Your task to perform on an android device: turn off data saver in the chrome app Image 0: 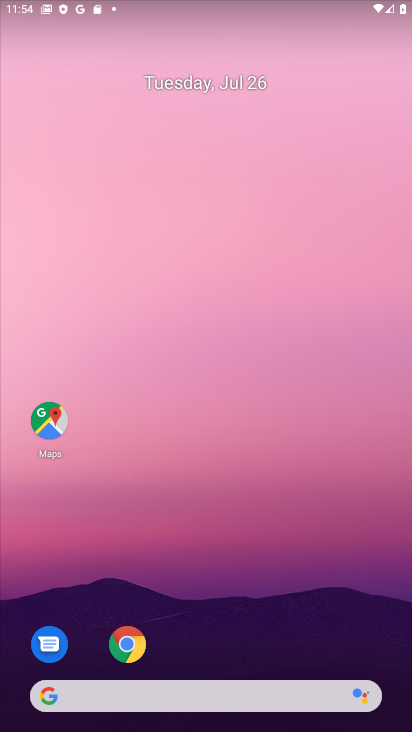
Step 0: drag from (214, 455) to (206, 179)
Your task to perform on an android device: turn off data saver in the chrome app Image 1: 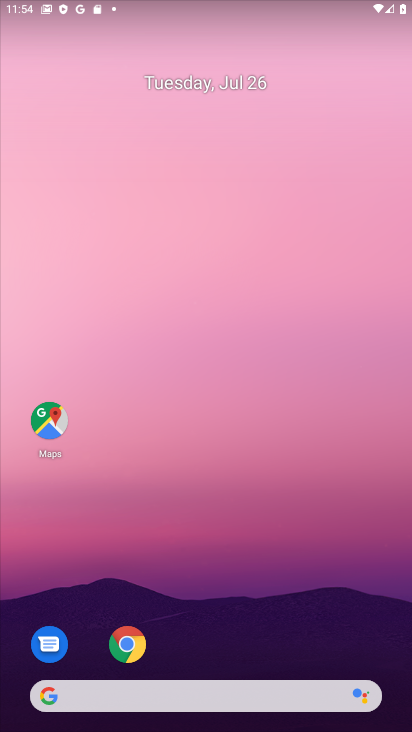
Step 1: click (124, 636)
Your task to perform on an android device: turn off data saver in the chrome app Image 2: 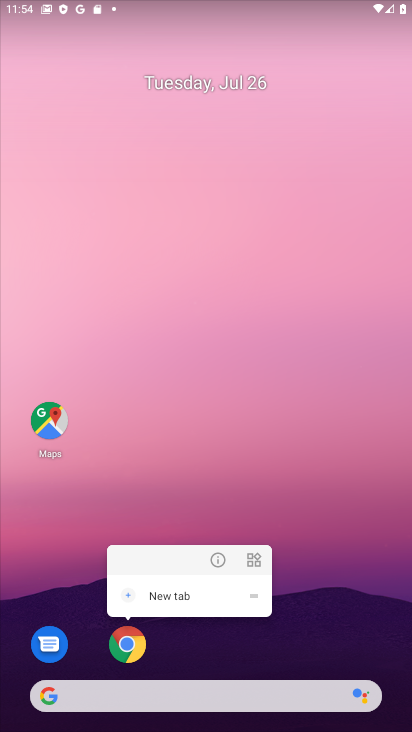
Step 2: click (215, 564)
Your task to perform on an android device: turn off data saver in the chrome app Image 3: 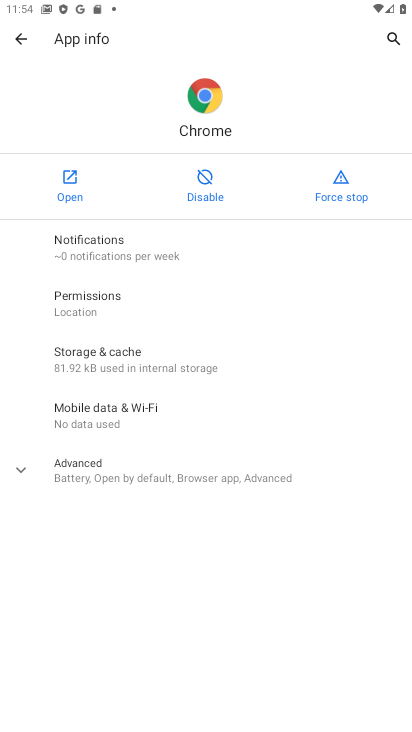
Step 3: click (74, 185)
Your task to perform on an android device: turn off data saver in the chrome app Image 4: 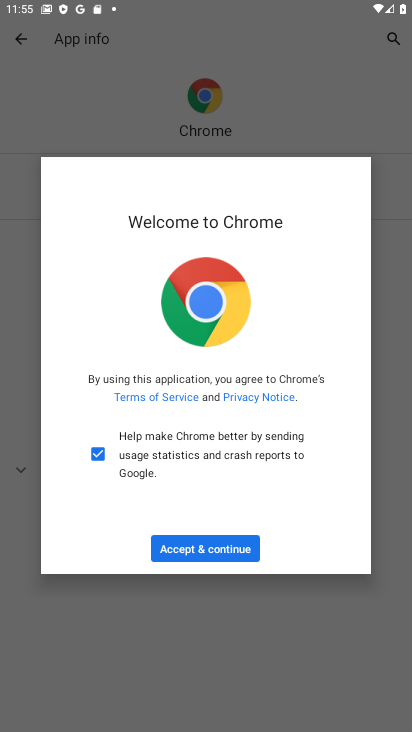
Step 4: click (162, 545)
Your task to perform on an android device: turn off data saver in the chrome app Image 5: 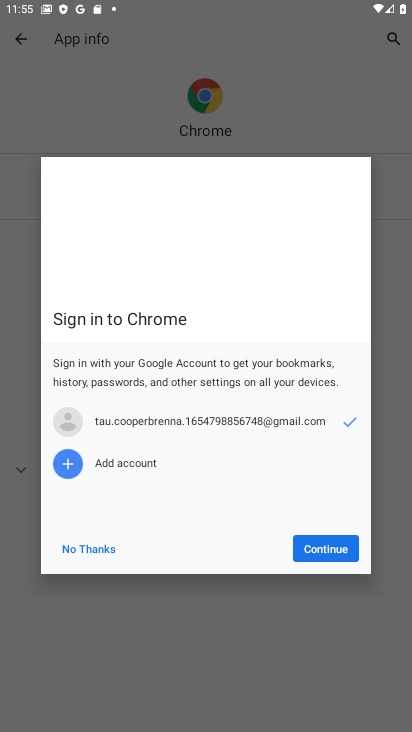
Step 5: click (303, 552)
Your task to perform on an android device: turn off data saver in the chrome app Image 6: 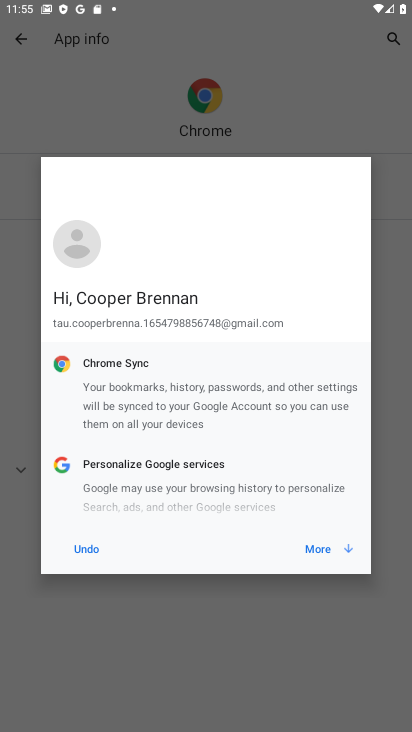
Step 6: click (325, 549)
Your task to perform on an android device: turn off data saver in the chrome app Image 7: 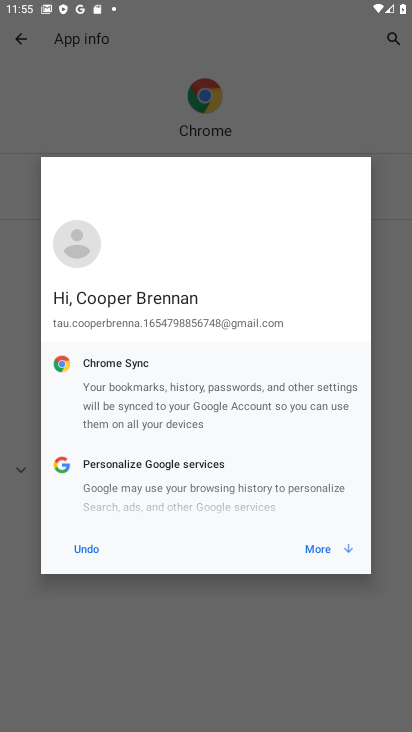
Step 7: click (325, 549)
Your task to perform on an android device: turn off data saver in the chrome app Image 8: 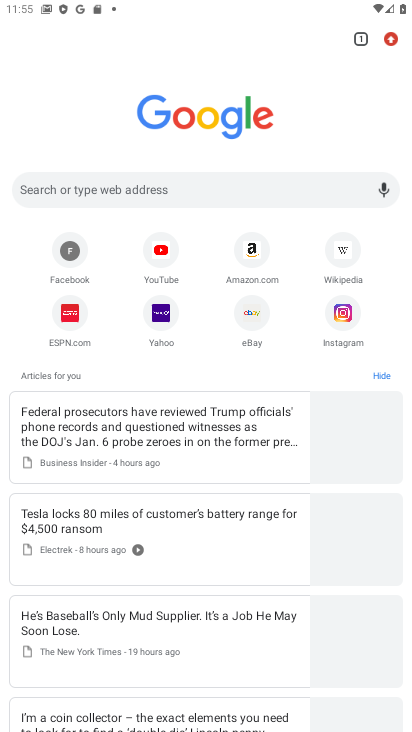
Step 8: drag from (394, 35) to (263, 377)
Your task to perform on an android device: turn off data saver in the chrome app Image 9: 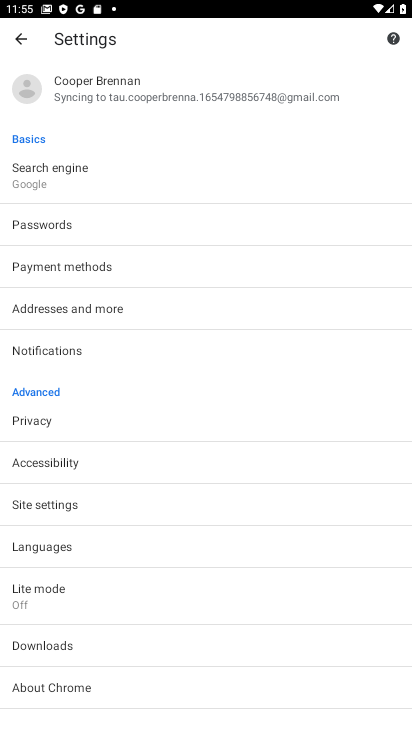
Step 9: click (82, 497)
Your task to perform on an android device: turn off data saver in the chrome app Image 10: 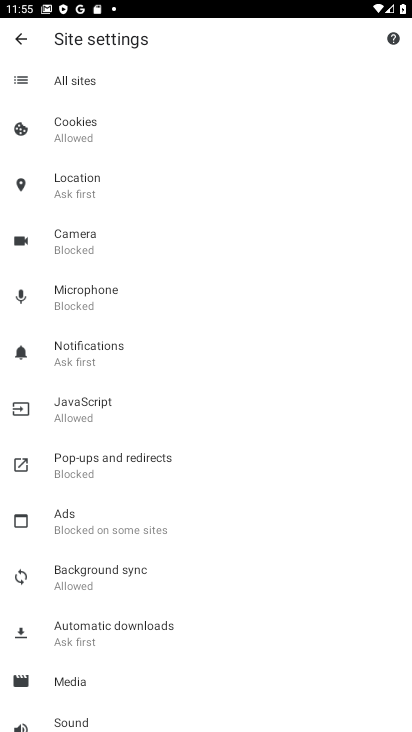
Step 10: drag from (92, 655) to (146, 407)
Your task to perform on an android device: turn off data saver in the chrome app Image 11: 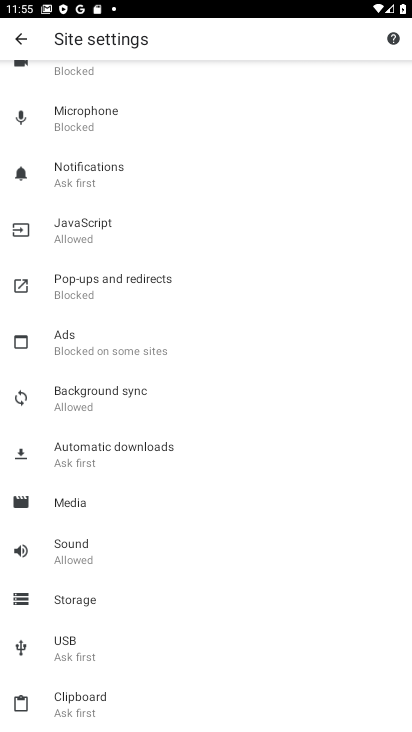
Step 11: drag from (123, 561) to (160, 298)
Your task to perform on an android device: turn off data saver in the chrome app Image 12: 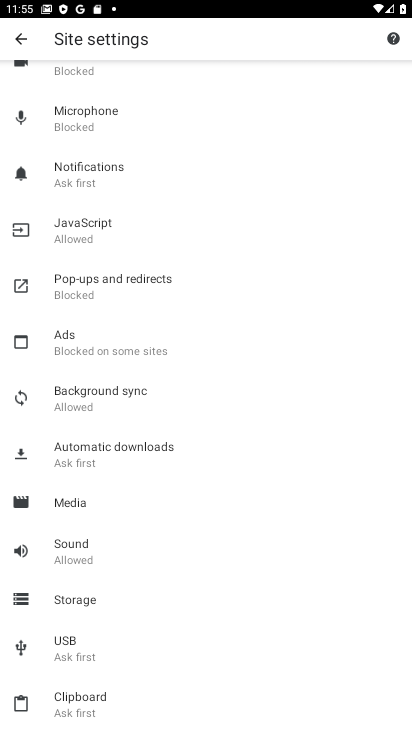
Step 12: drag from (242, 286) to (214, 724)
Your task to perform on an android device: turn off data saver in the chrome app Image 13: 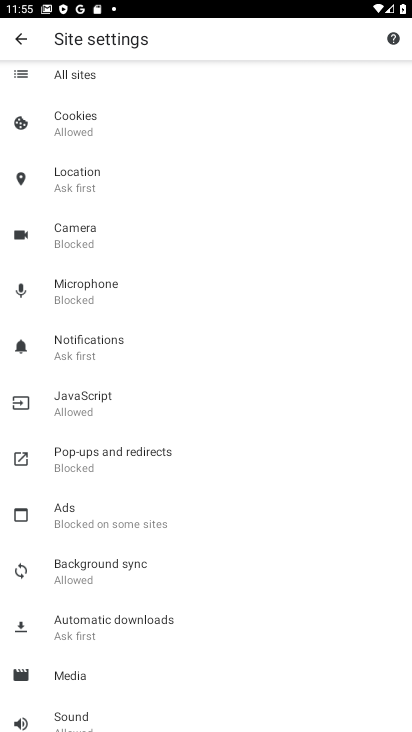
Step 13: click (16, 34)
Your task to perform on an android device: turn off data saver in the chrome app Image 14: 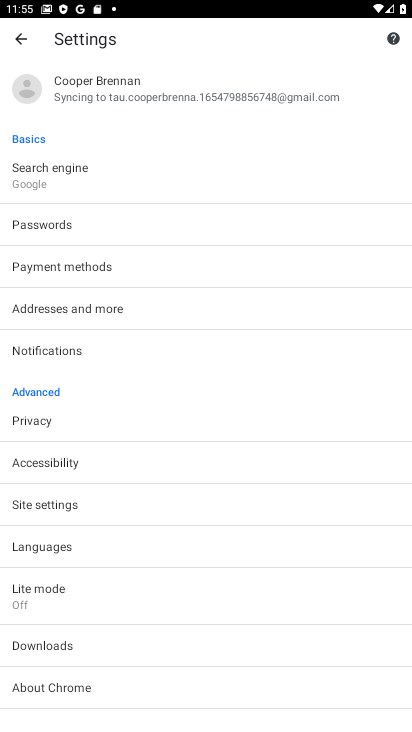
Step 14: click (62, 593)
Your task to perform on an android device: turn off data saver in the chrome app Image 15: 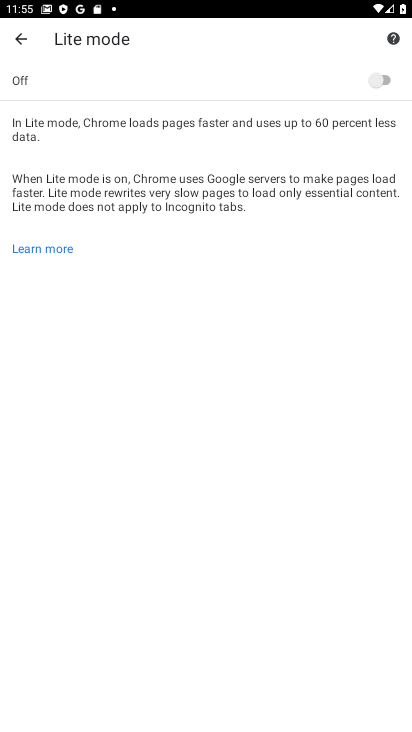
Step 15: task complete